Your task to perform on an android device: refresh tabs in the chrome app Image 0: 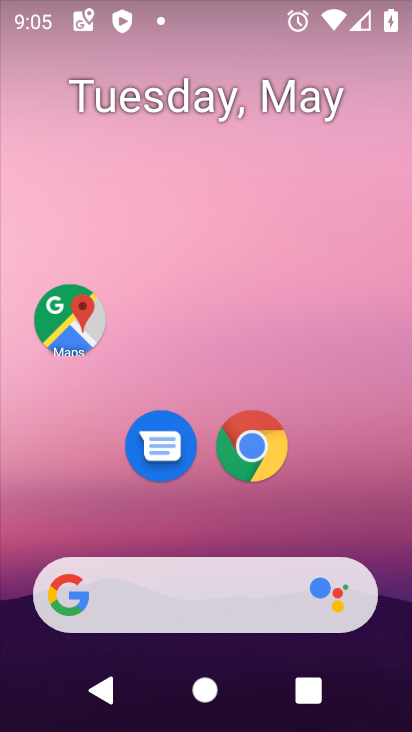
Step 0: click (244, 459)
Your task to perform on an android device: refresh tabs in the chrome app Image 1: 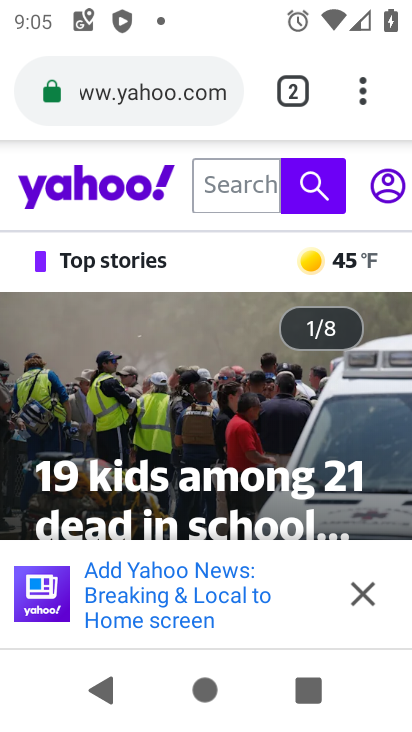
Step 1: click (364, 97)
Your task to perform on an android device: refresh tabs in the chrome app Image 2: 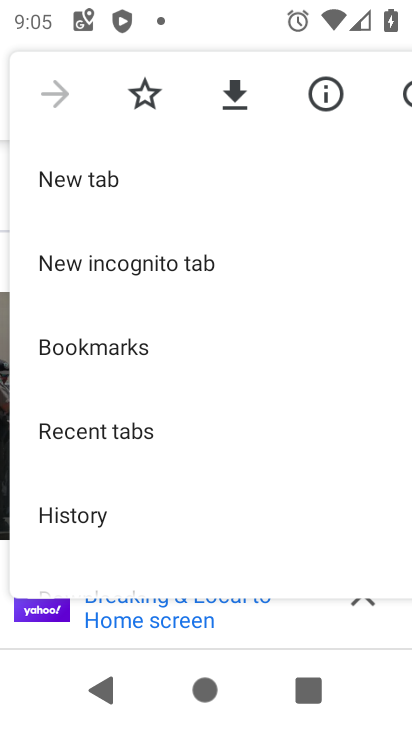
Step 2: click (403, 95)
Your task to perform on an android device: refresh tabs in the chrome app Image 3: 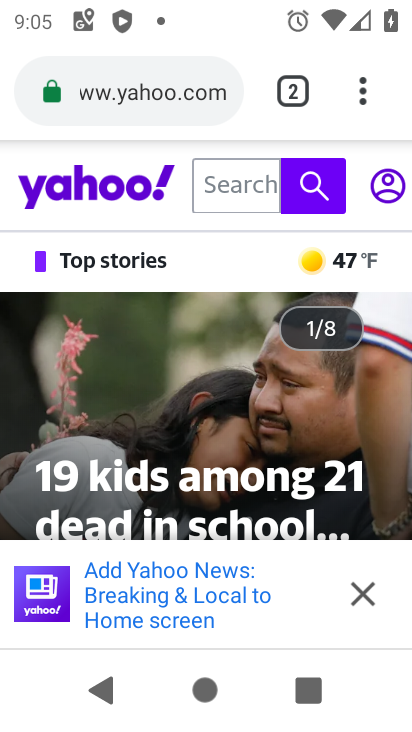
Step 3: task complete